Your task to perform on an android device: Open the phone app and click the voicemail tab. Image 0: 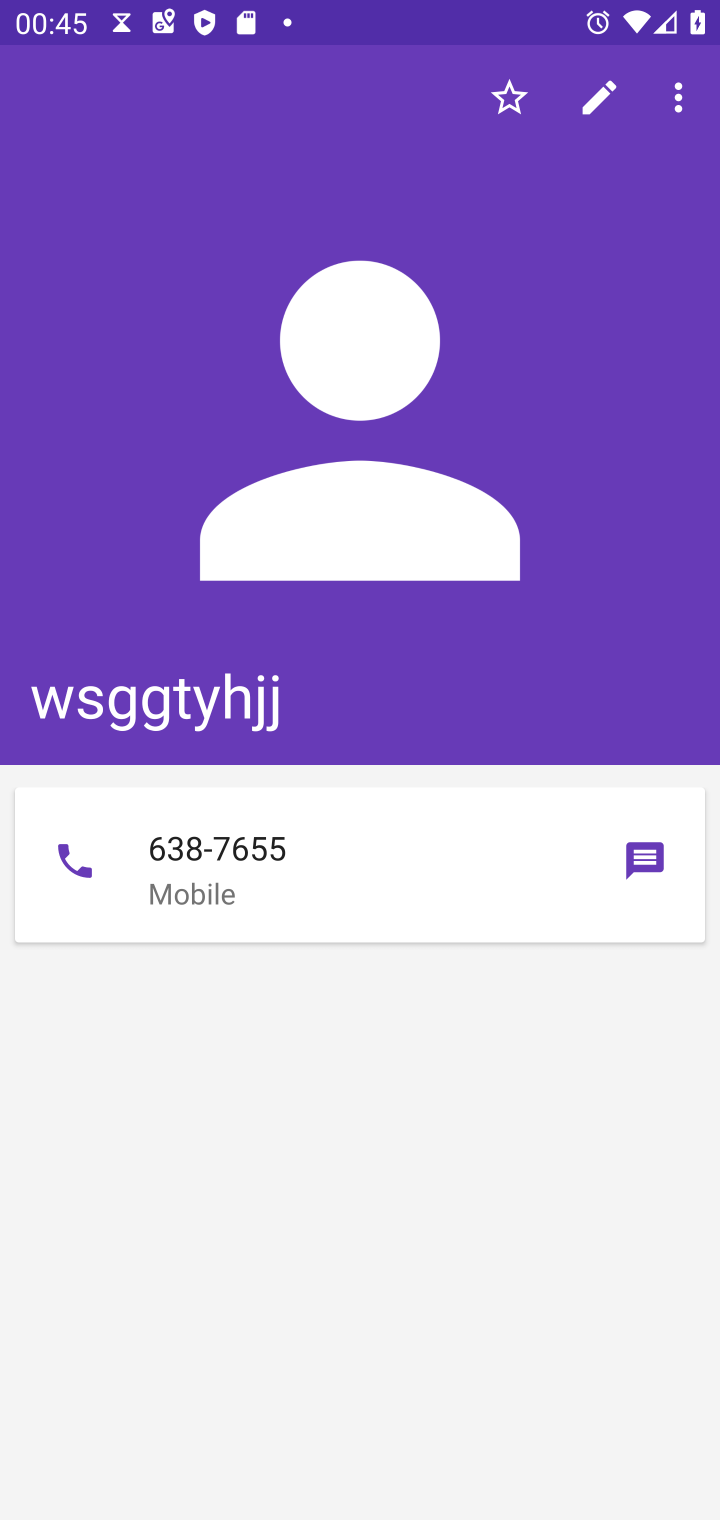
Step 0: press home button
Your task to perform on an android device: Open the phone app and click the voicemail tab. Image 1: 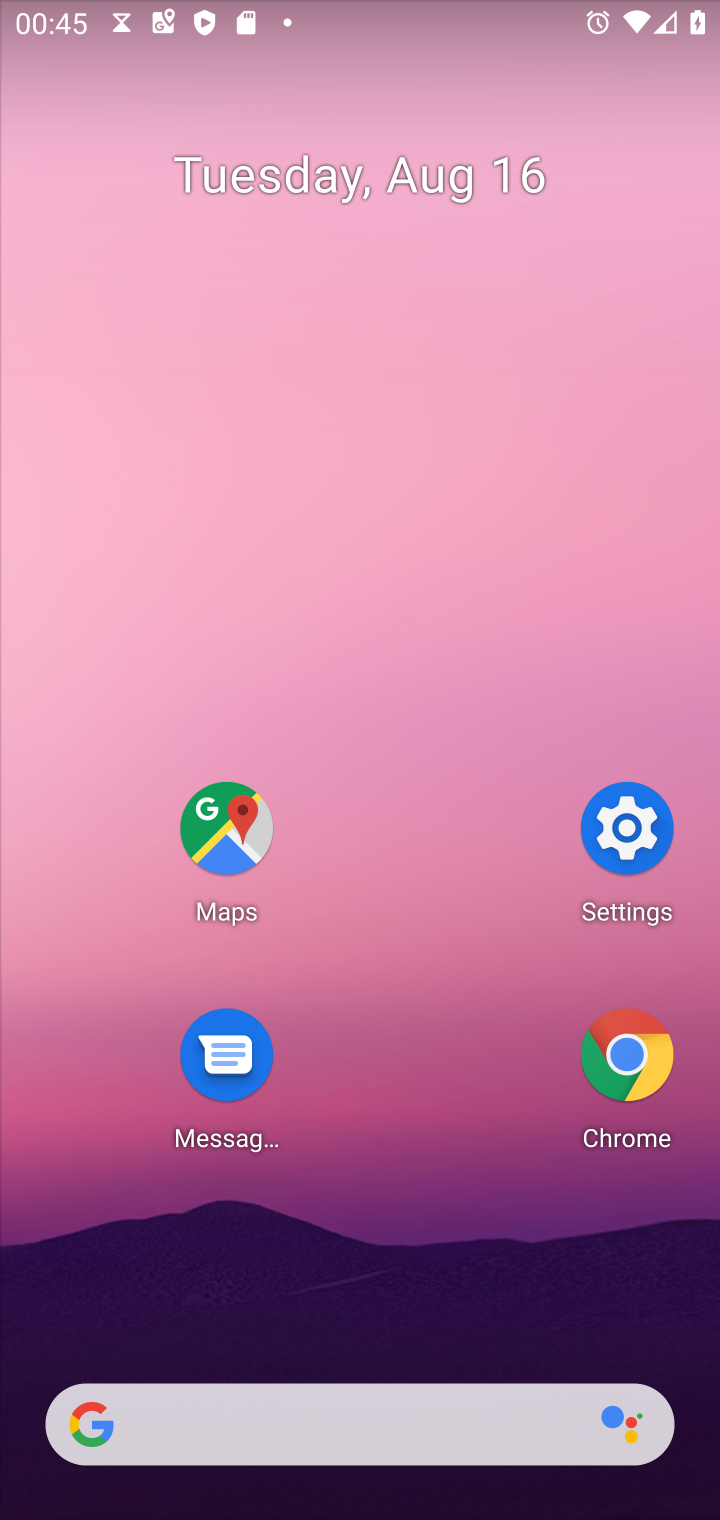
Step 1: drag from (336, 1436) to (609, 141)
Your task to perform on an android device: Open the phone app and click the voicemail tab. Image 2: 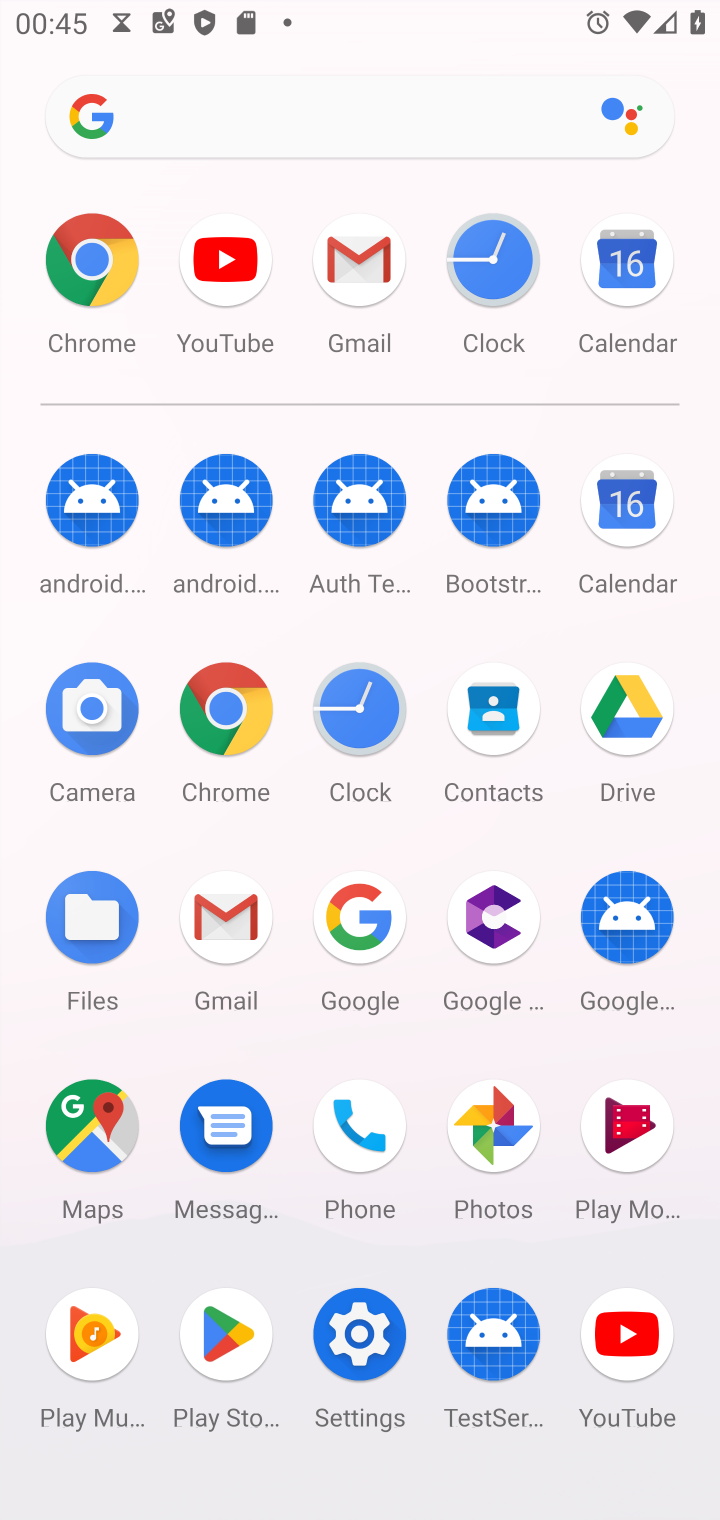
Step 2: click (335, 1116)
Your task to perform on an android device: Open the phone app and click the voicemail tab. Image 3: 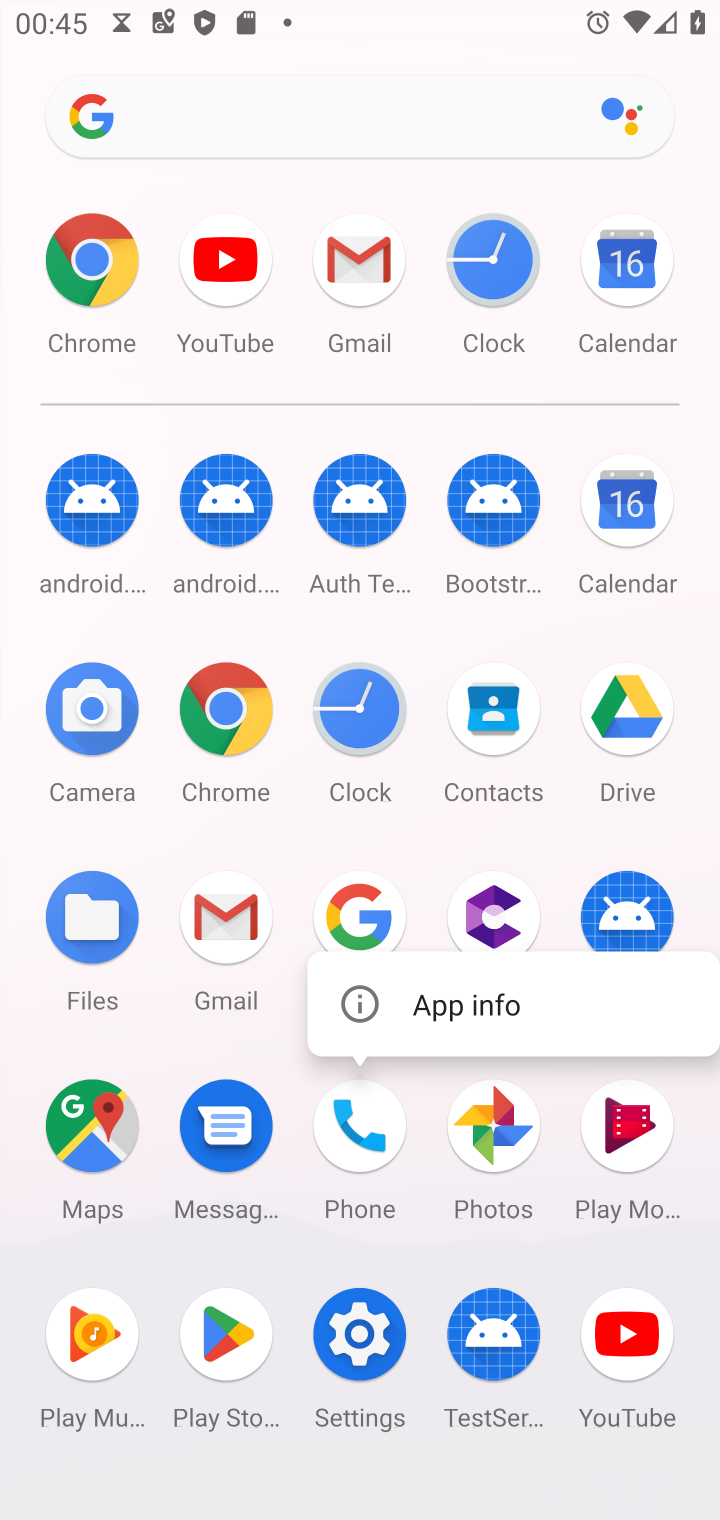
Step 3: click (335, 1130)
Your task to perform on an android device: Open the phone app and click the voicemail tab. Image 4: 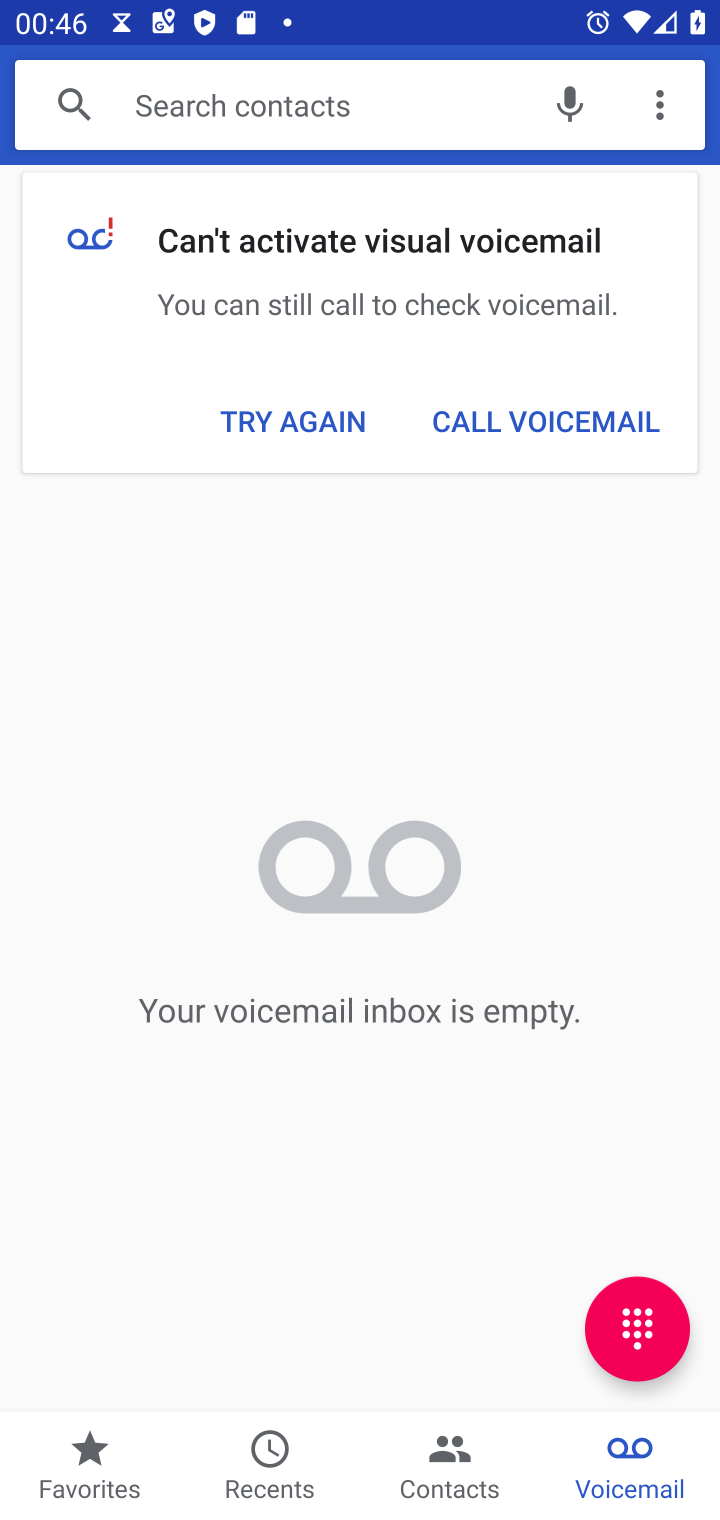
Step 4: task complete